Your task to perform on an android device: open app "Pandora - Music & Podcasts" Image 0: 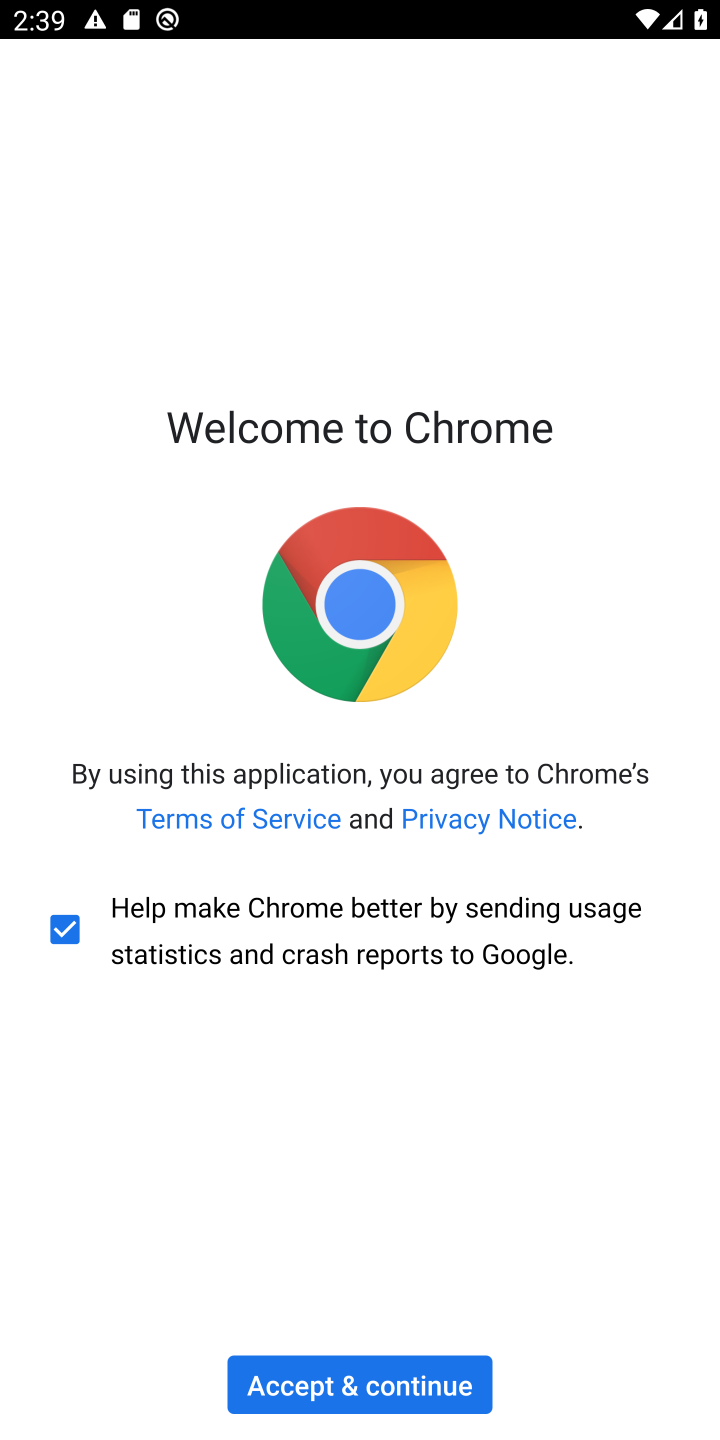
Step 0: press home button
Your task to perform on an android device: open app "Pandora - Music & Podcasts" Image 1: 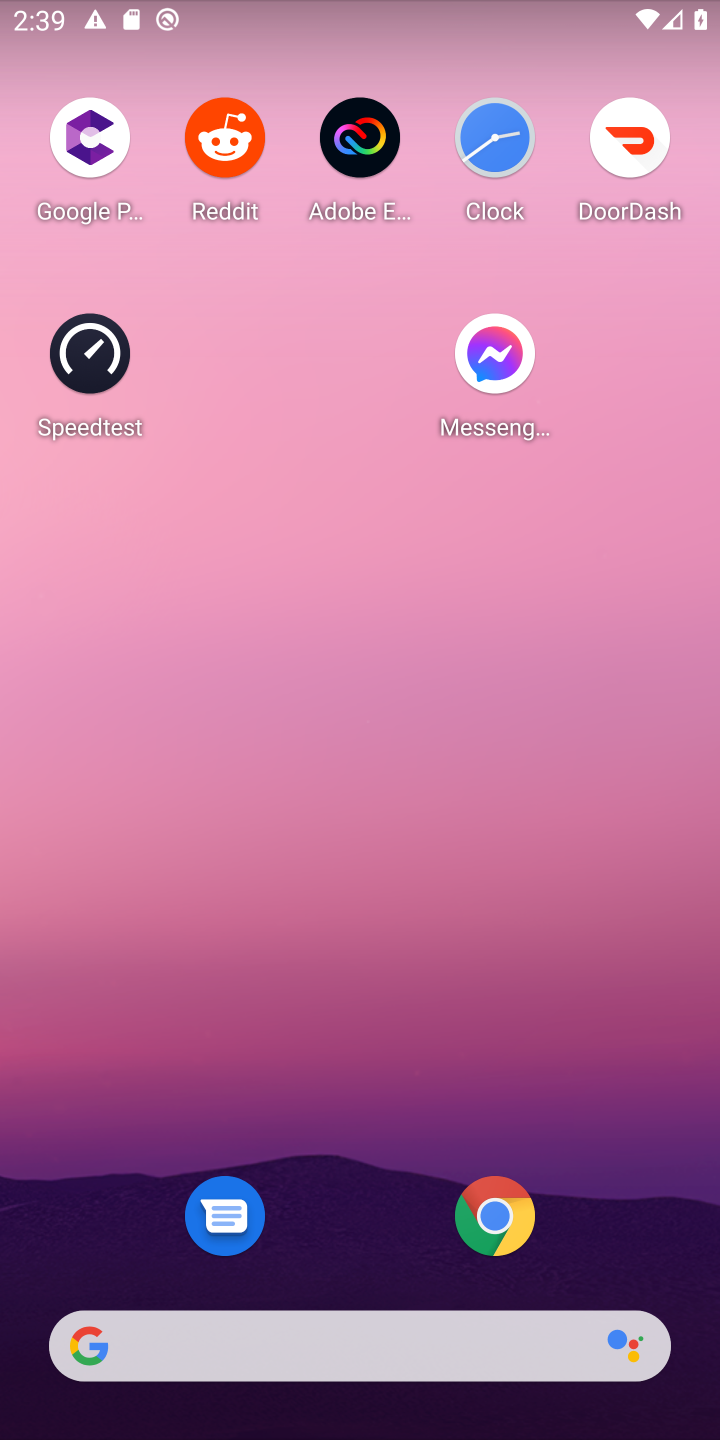
Step 1: drag from (678, 1243) to (565, 301)
Your task to perform on an android device: open app "Pandora - Music & Podcasts" Image 2: 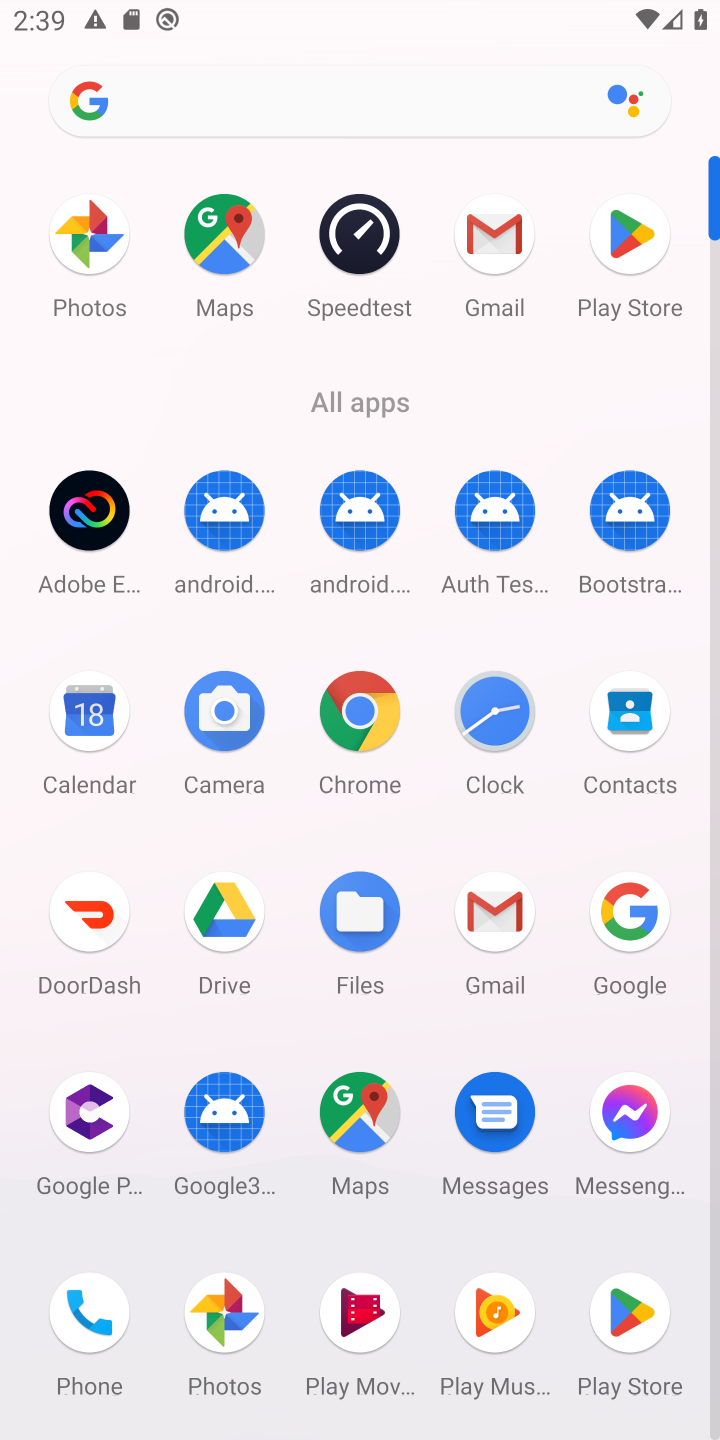
Step 2: click (633, 1311)
Your task to perform on an android device: open app "Pandora - Music & Podcasts" Image 3: 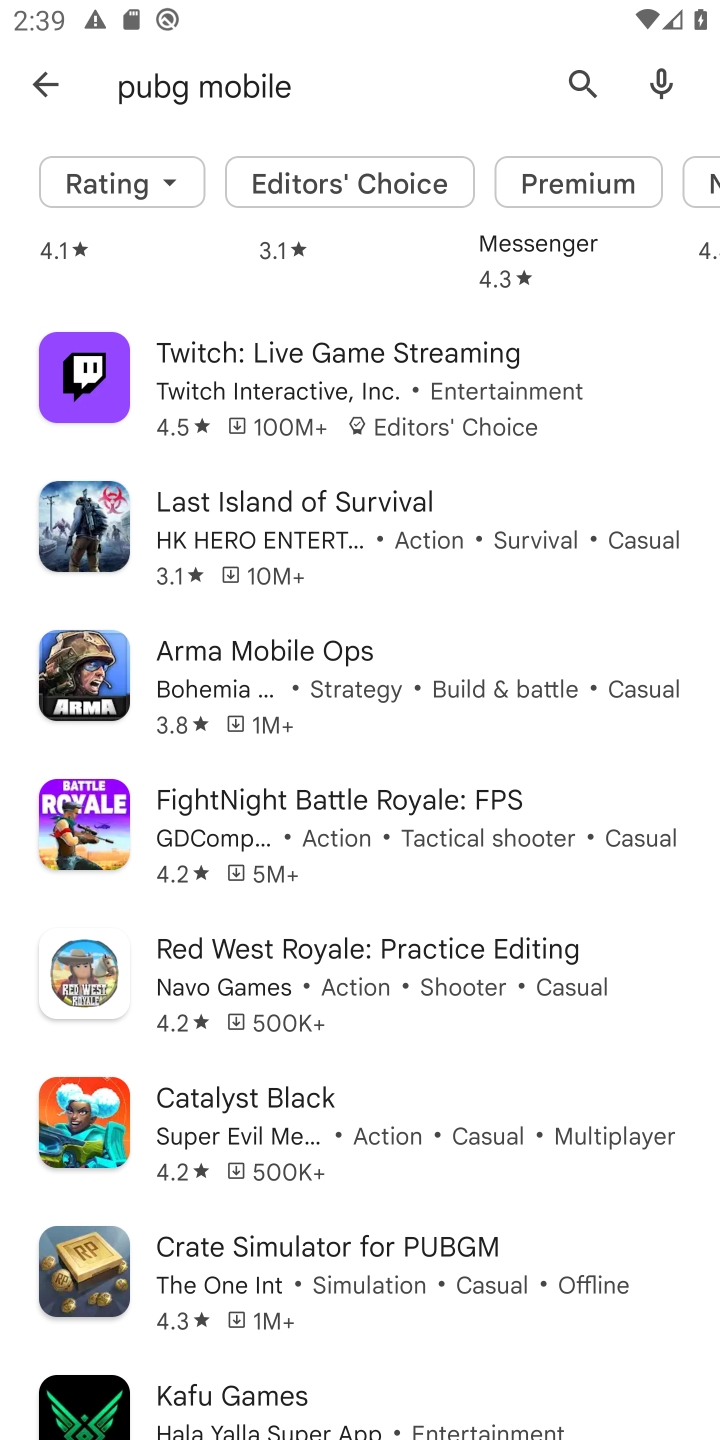
Step 3: click (574, 81)
Your task to perform on an android device: open app "Pandora - Music & Podcasts" Image 4: 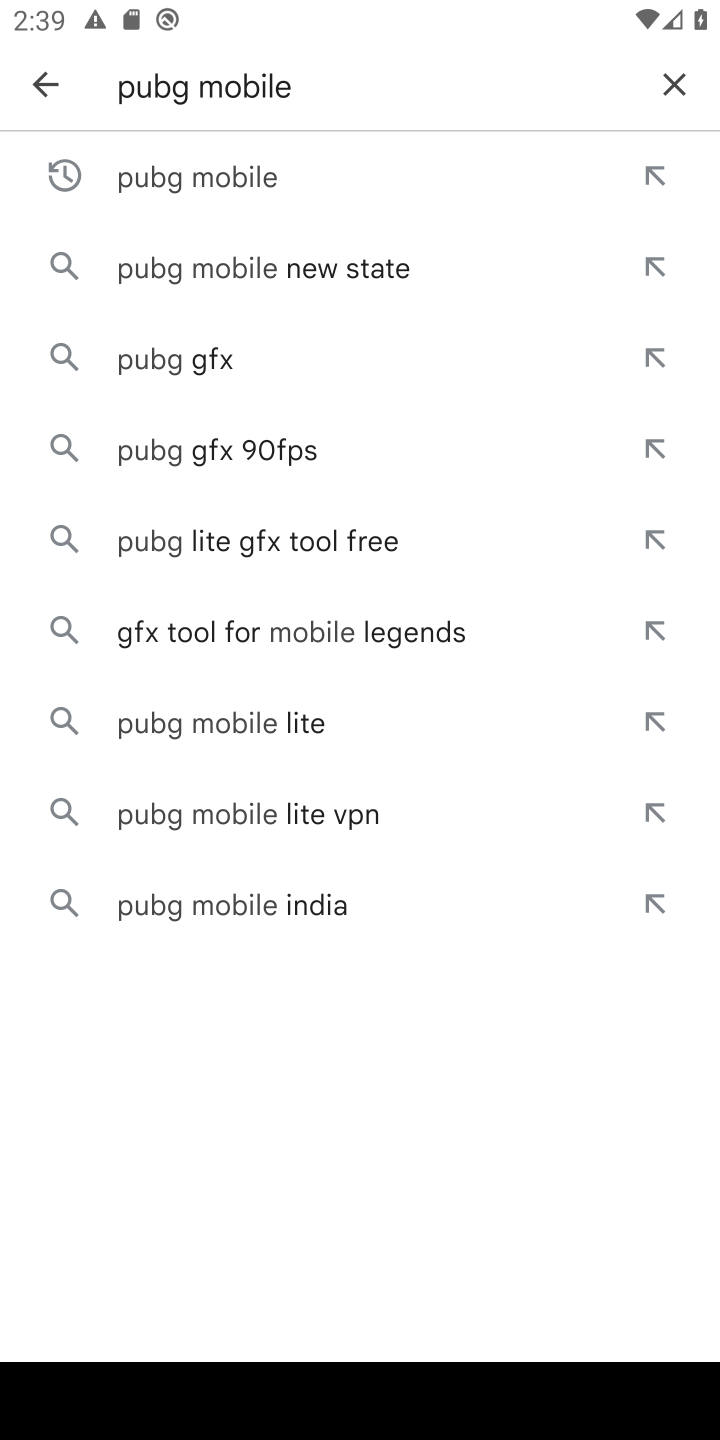
Step 4: click (671, 74)
Your task to perform on an android device: open app "Pandora - Music & Podcasts" Image 5: 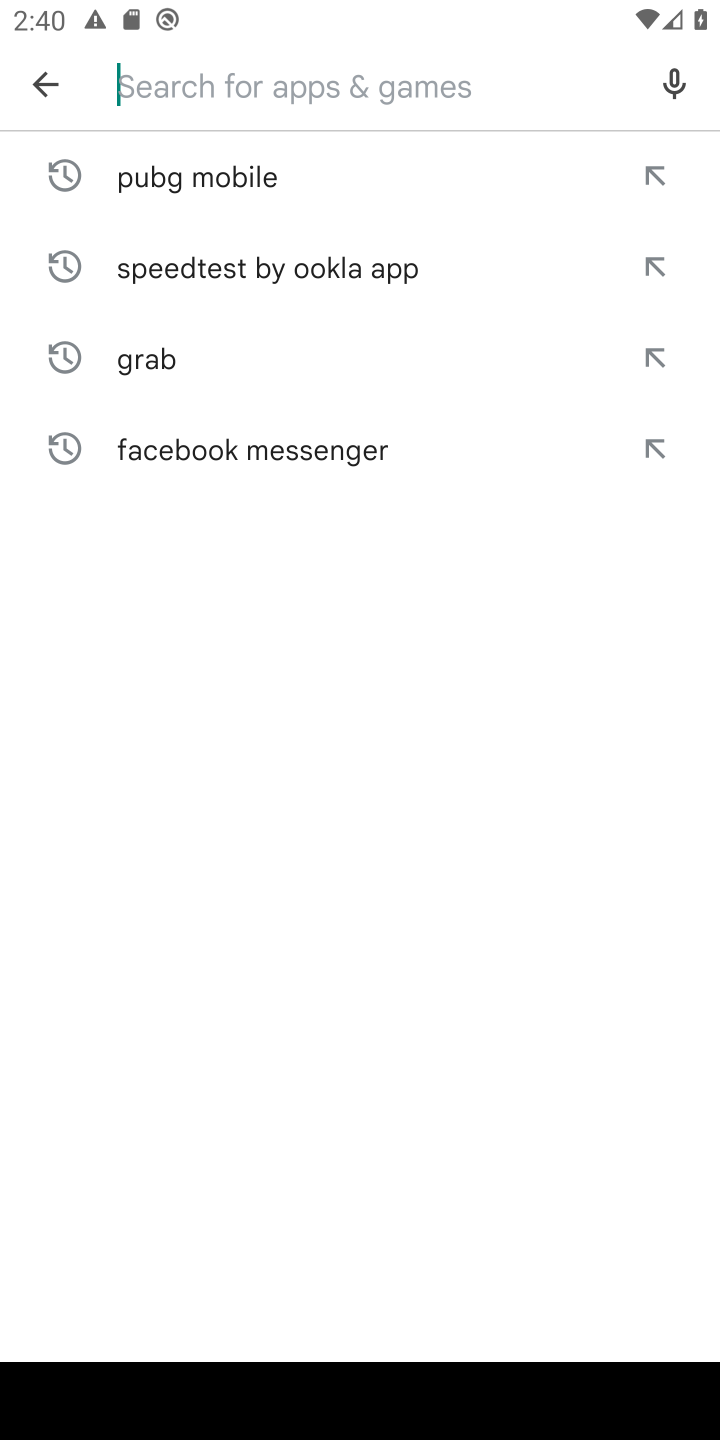
Step 5: type "Pandora - Music & Podcasts"
Your task to perform on an android device: open app "Pandora - Music & Podcasts" Image 6: 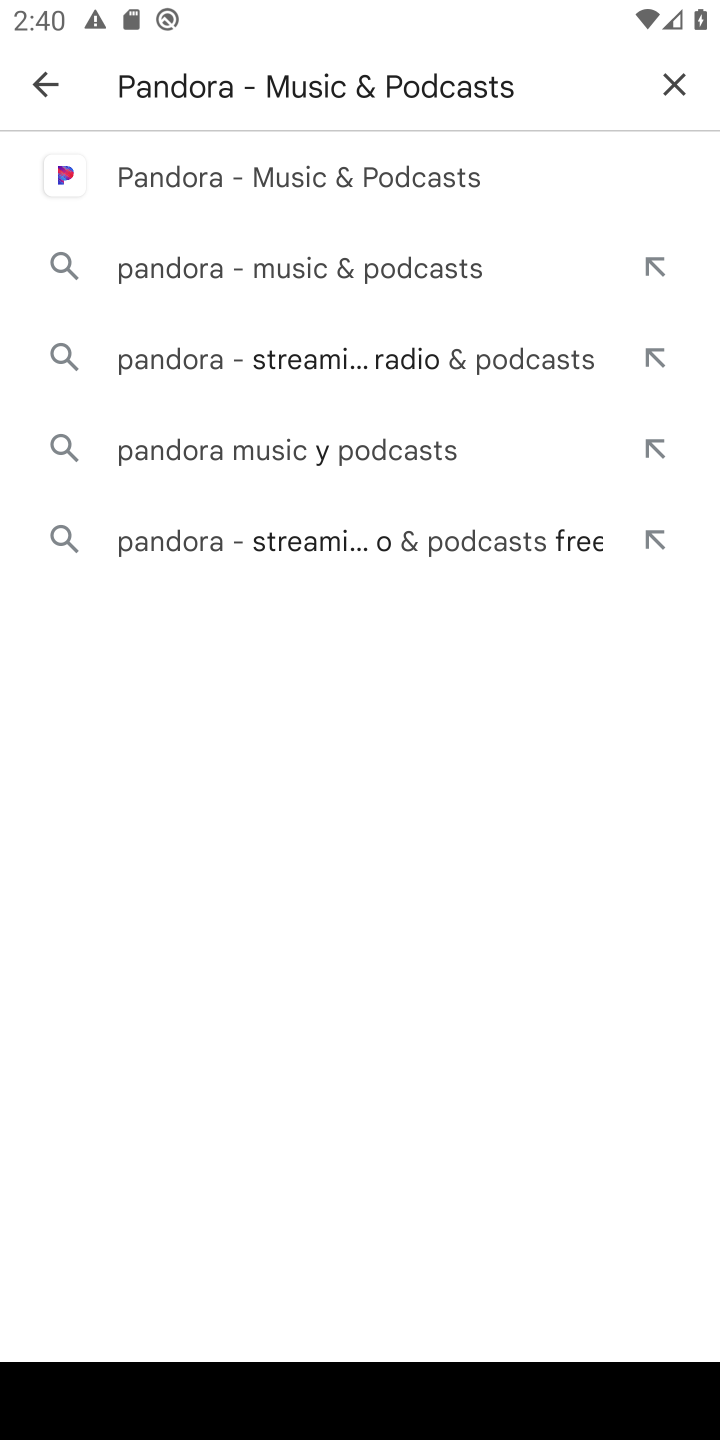
Step 6: click (236, 166)
Your task to perform on an android device: open app "Pandora - Music & Podcasts" Image 7: 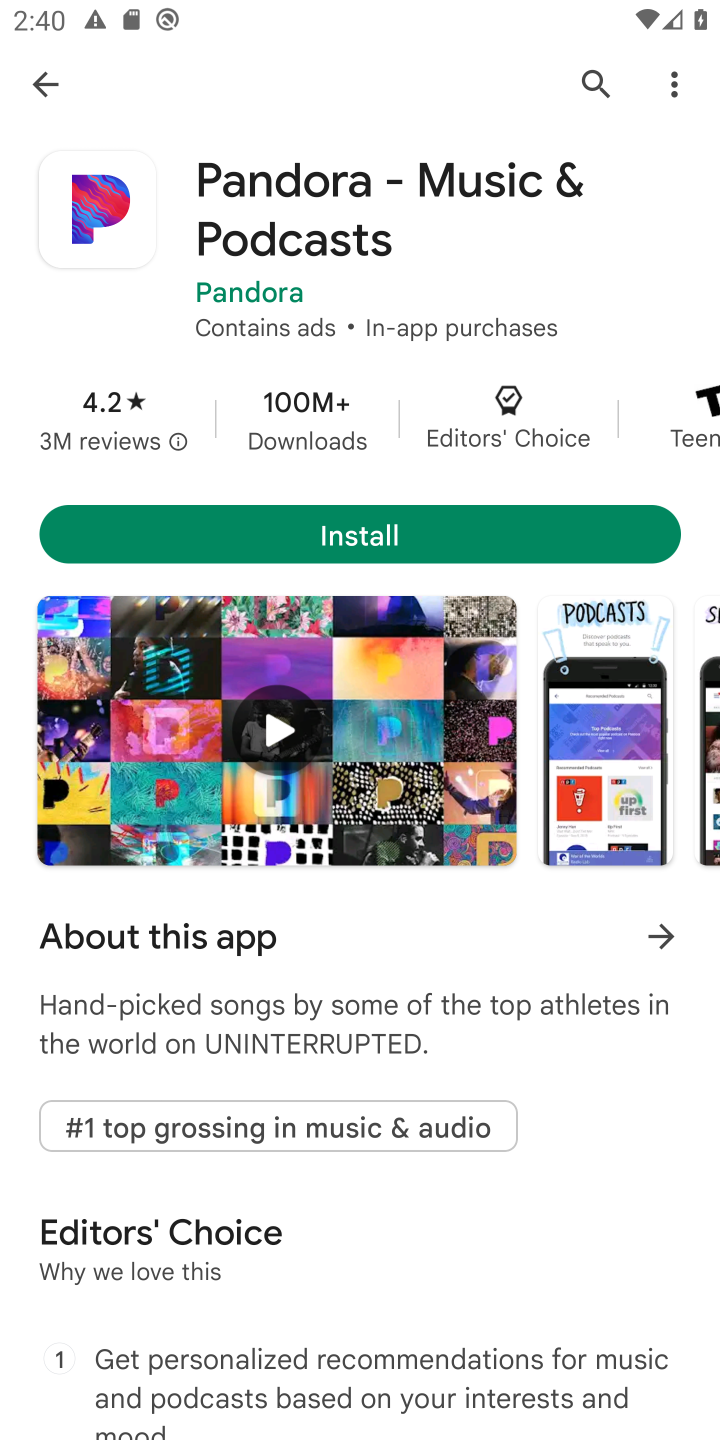
Step 7: task complete